Your task to perform on an android device: Go to Google maps Image 0: 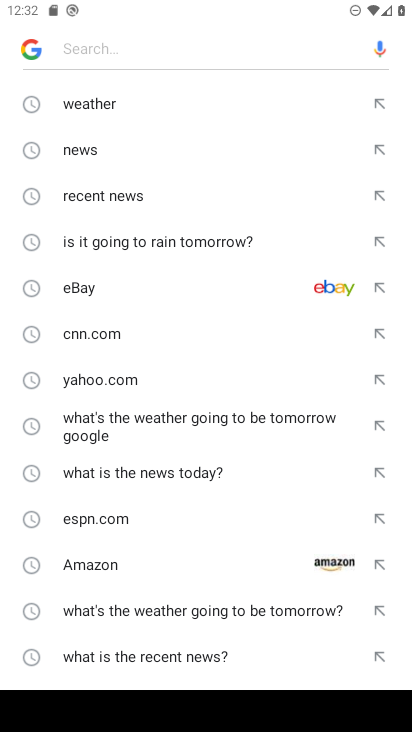
Step 0: press home button
Your task to perform on an android device: Go to Google maps Image 1: 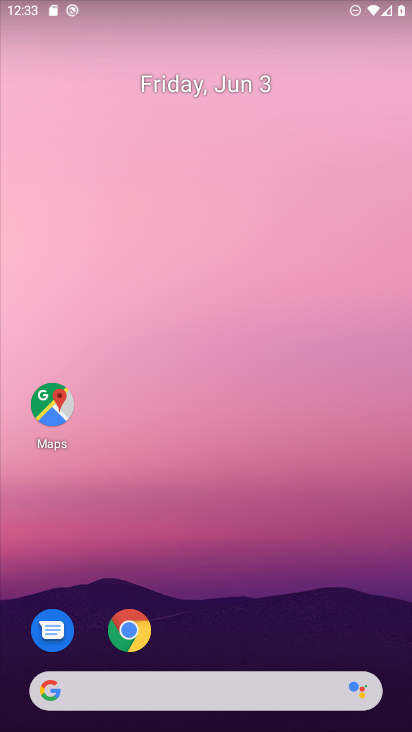
Step 1: click (60, 404)
Your task to perform on an android device: Go to Google maps Image 2: 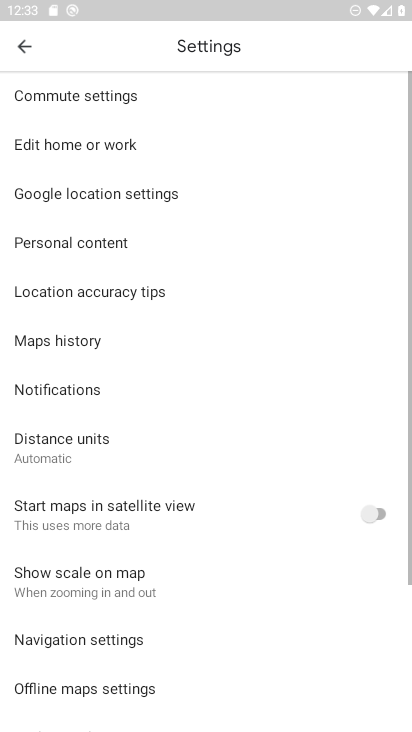
Step 2: click (29, 41)
Your task to perform on an android device: Go to Google maps Image 3: 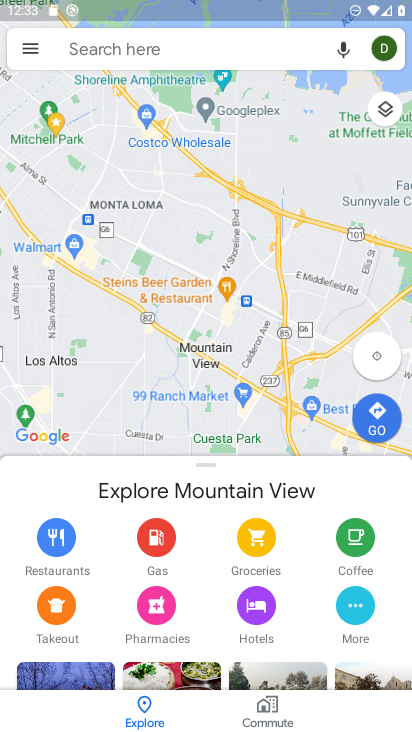
Step 3: task complete